Your task to perform on an android device: delete location history Image 0: 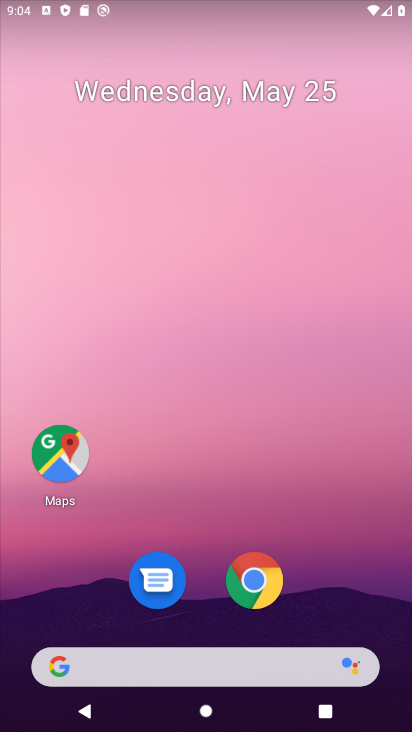
Step 0: press home button
Your task to perform on an android device: delete location history Image 1: 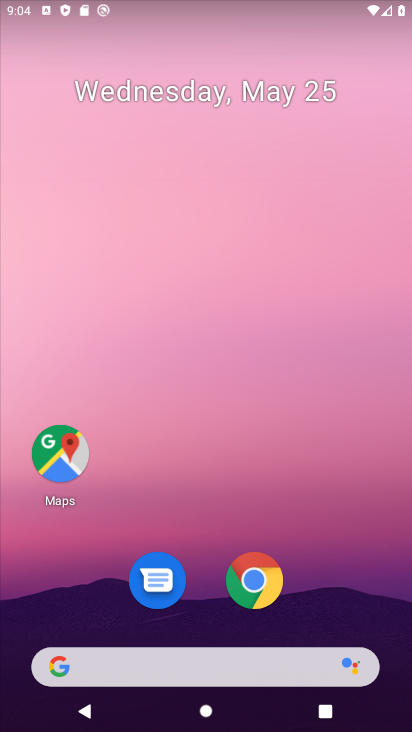
Step 1: drag from (69, 539) to (306, 84)
Your task to perform on an android device: delete location history Image 2: 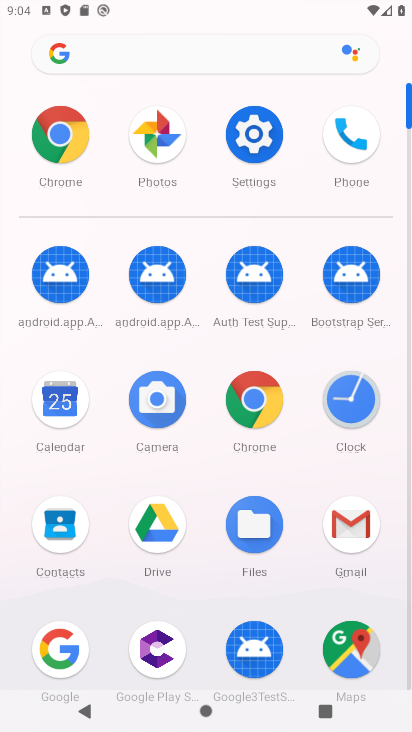
Step 2: click (248, 139)
Your task to perform on an android device: delete location history Image 3: 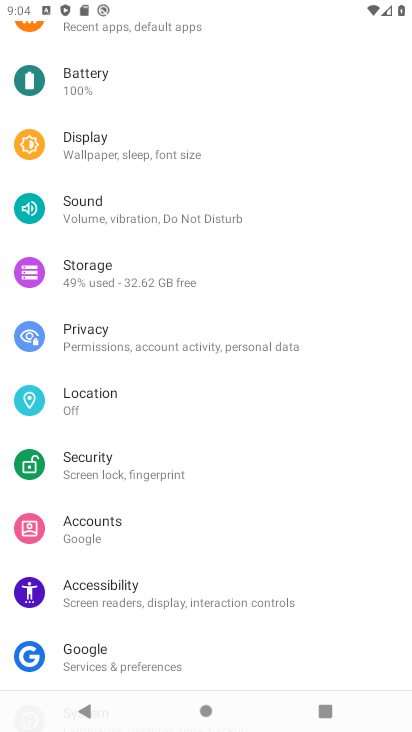
Step 3: click (114, 391)
Your task to perform on an android device: delete location history Image 4: 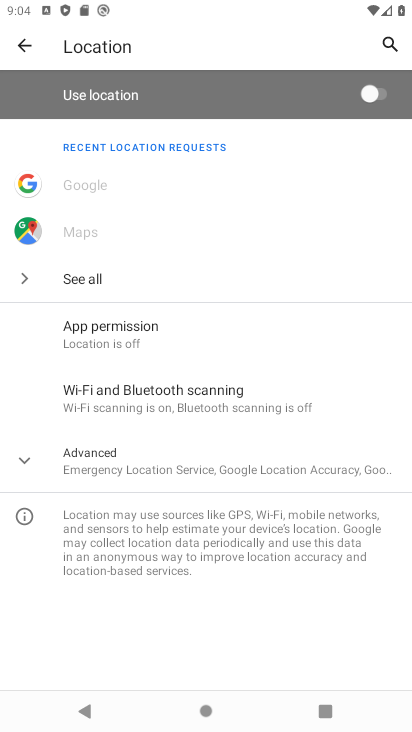
Step 4: click (144, 460)
Your task to perform on an android device: delete location history Image 5: 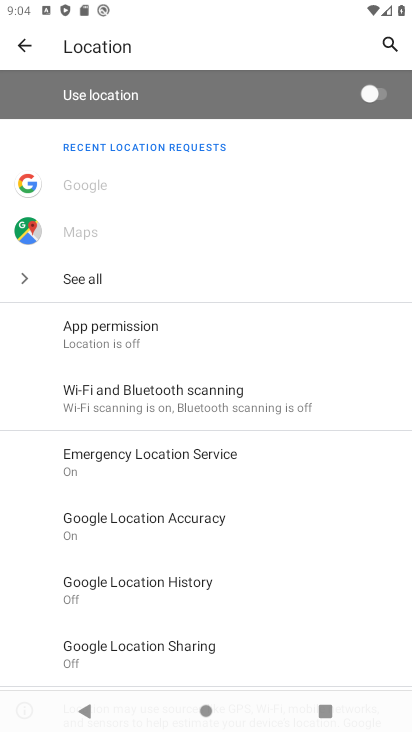
Step 5: click (156, 587)
Your task to perform on an android device: delete location history Image 6: 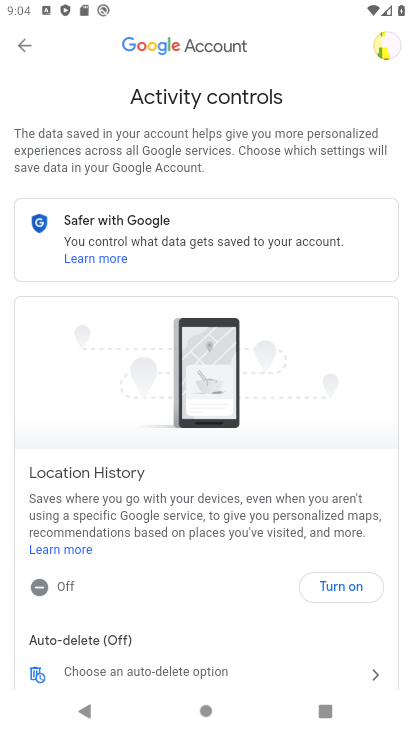
Step 6: drag from (26, 613) to (241, 272)
Your task to perform on an android device: delete location history Image 7: 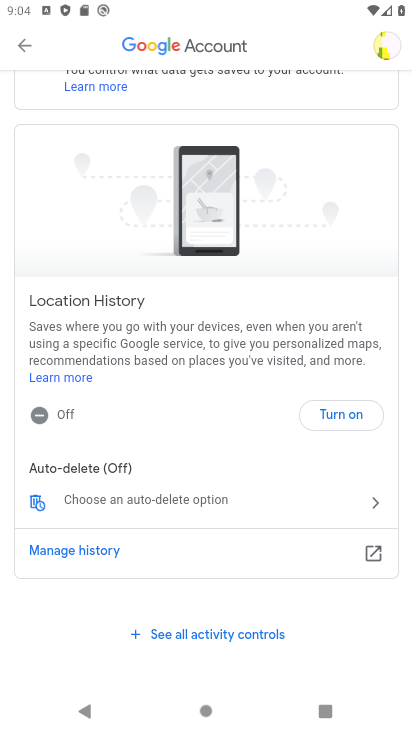
Step 7: click (221, 490)
Your task to perform on an android device: delete location history Image 8: 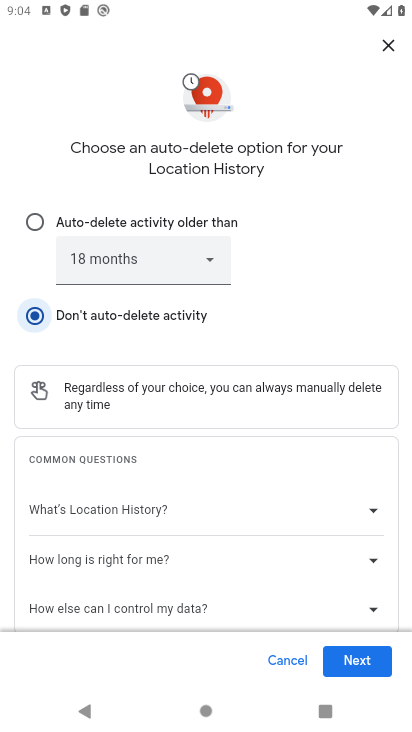
Step 8: click (361, 674)
Your task to perform on an android device: delete location history Image 9: 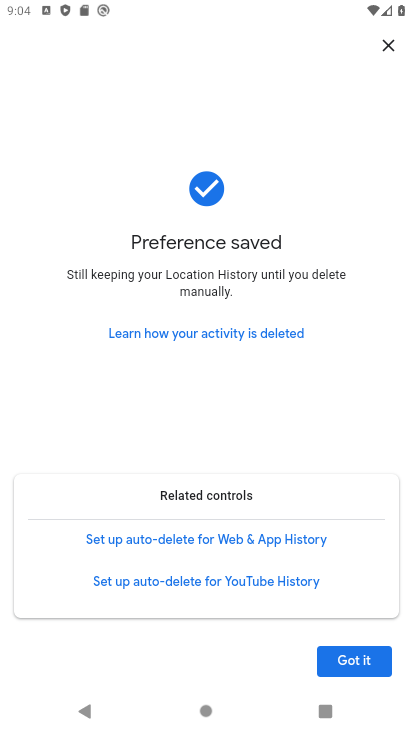
Step 9: click (353, 661)
Your task to perform on an android device: delete location history Image 10: 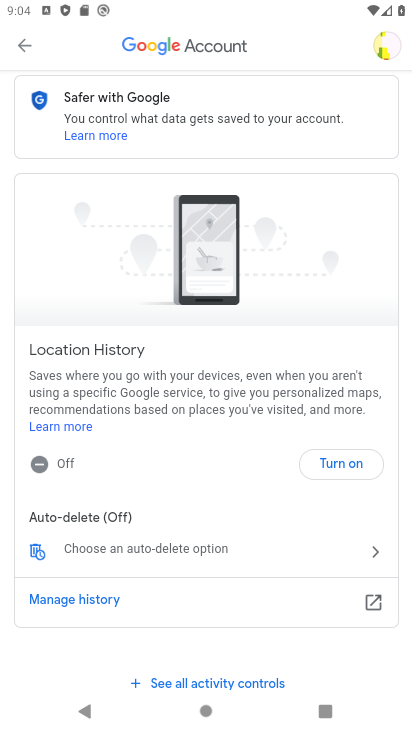
Step 10: task complete